Your task to perform on an android device: When is my next meeting? Image 0: 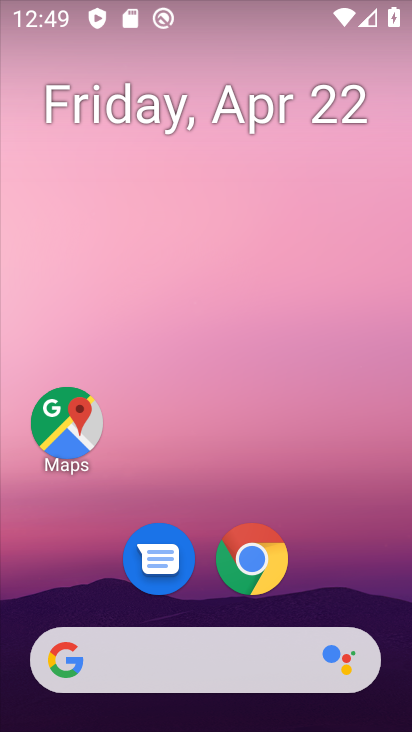
Step 0: drag from (180, 631) to (229, 260)
Your task to perform on an android device: When is my next meeting? Image 1: 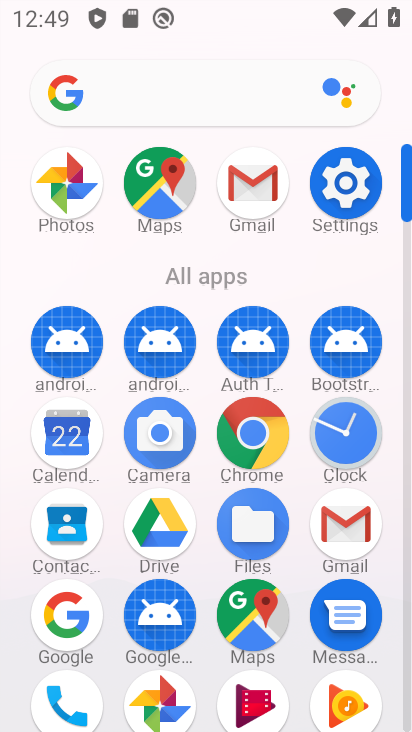
Step 1: click (54, 424)
Your task to perform on an android device: When is my next meeting? Image 2: 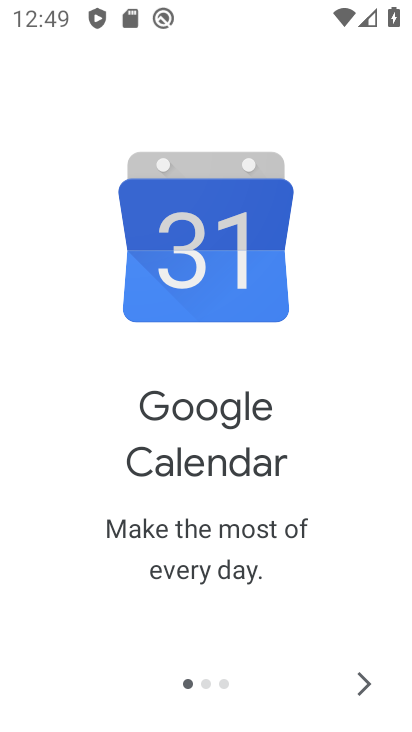
Step 2: click (356, 691)
Your task to perform on an android device: When is my next meeting? Image 3: 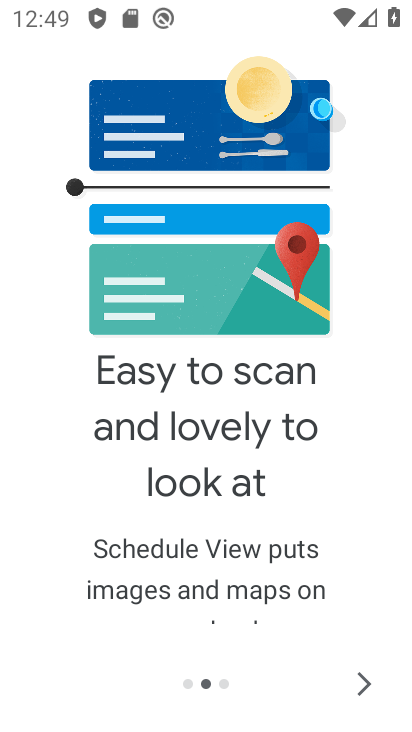
Step 3: click (356, 691)
Your task to perform on an android device: When is my next meeting? Image 4: 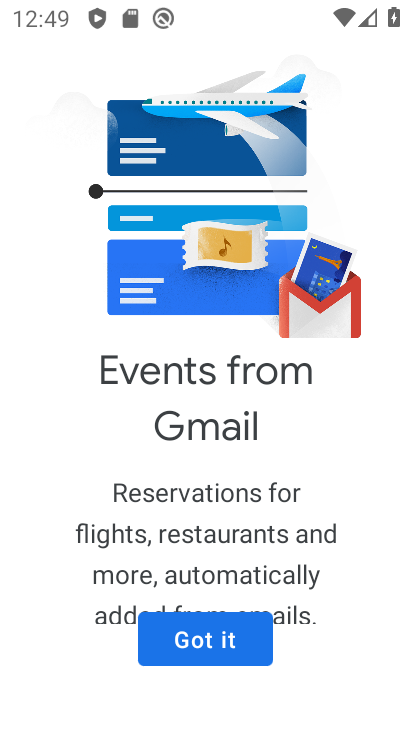
Step 4: click (223, 630)
Your task to perform on an android device: When is my next meeting? Image 5: 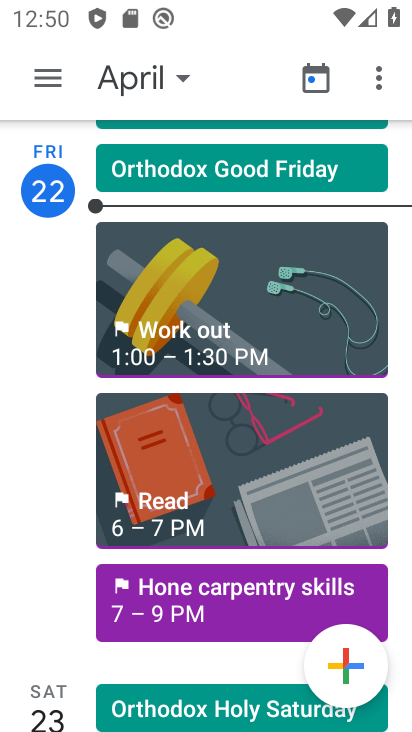
Step 5: click (46, 79)
Your task to perform on an android device: When is my next meeting? Image 6: 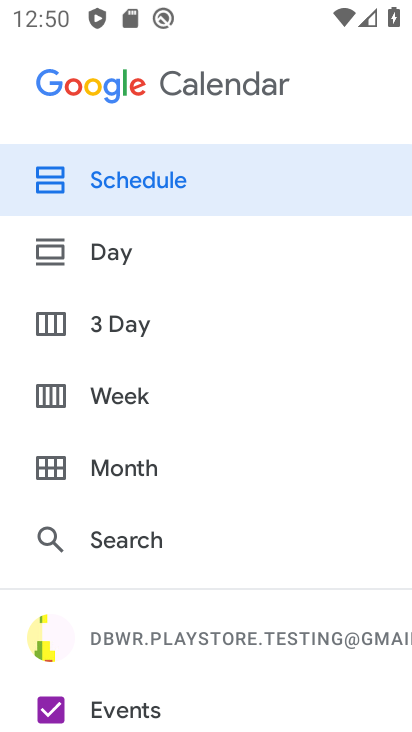
Step 6: click (110, 181)
Your task to perform on an android device: When is my next meeting? Image 7: 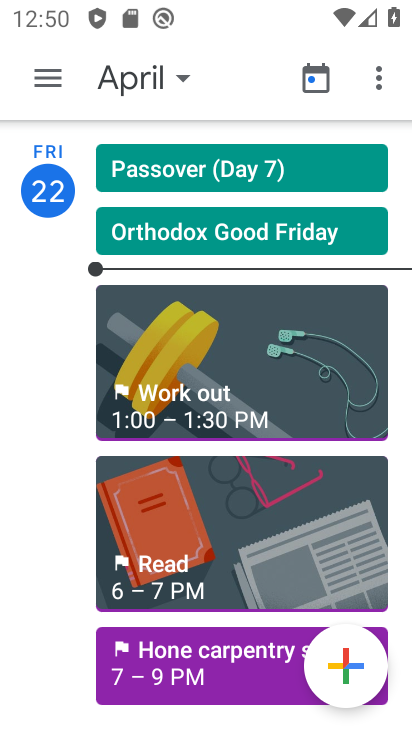
Step 7: task complete